Your task to perform on an android device: turn on improve location accuracy Image 0: 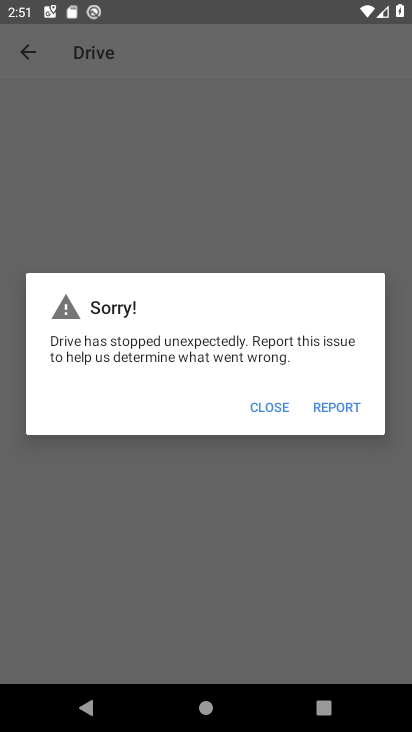
Step 0: press home button
Your task to perform on an android device: turn on improve location accuracy Image 1: 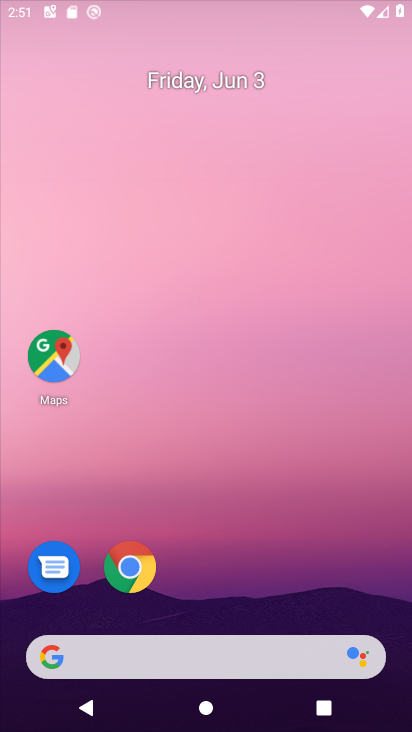
Step 1: drag from (271, 563) to (310, 140)
Your task to perform on an android device: turn on improve location accuracy Image 2: 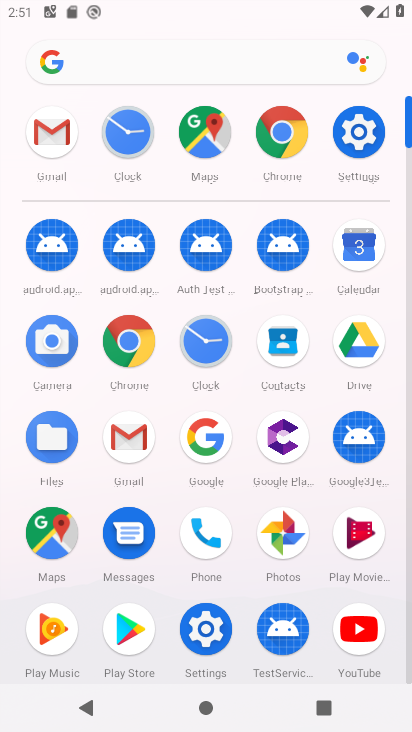
Step 2: click (371, 129)
Your task to perform on an android device: turn on improve location accuracy Image 3: 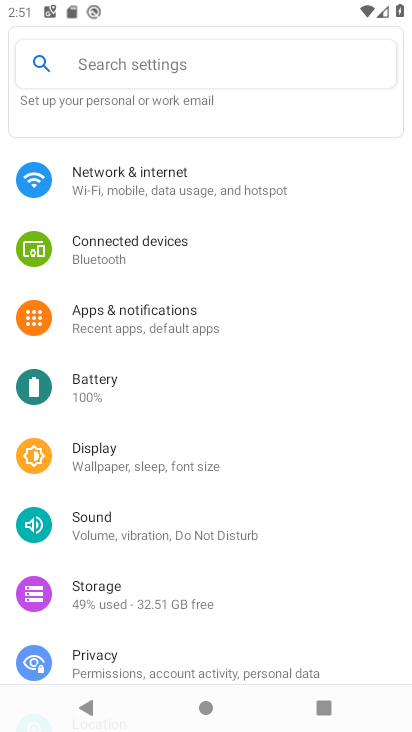
Step 3: drag from (159, 584) to (203, 276)
Your task to perform on an android device: turn on improve location accuracy Image 4: 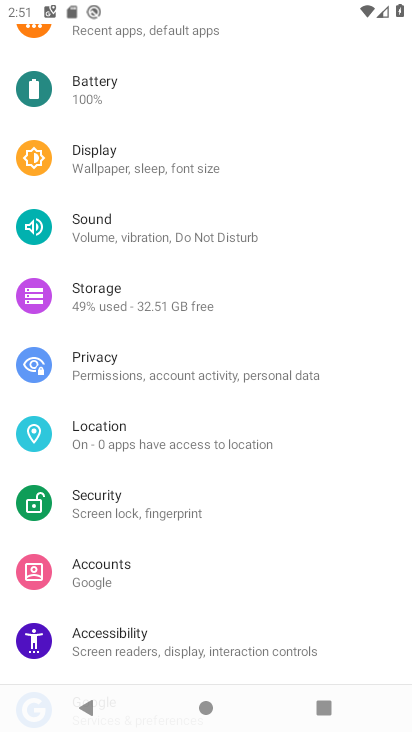
Step 4: click (133, 442)
Your task to perform on an android device: turn on improve location accuracy Image 5: 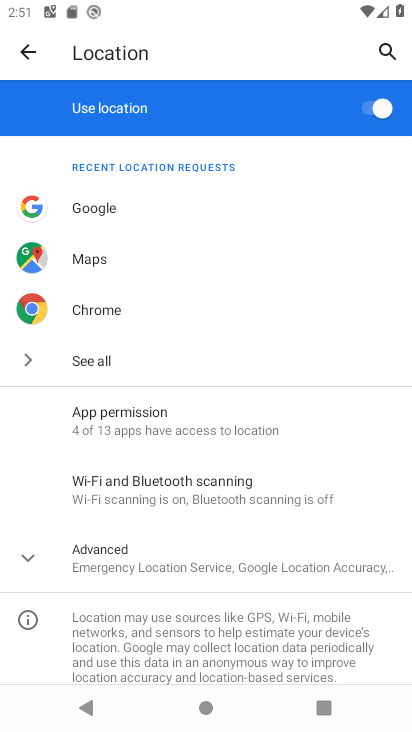
Step 5: click (247, 567)
Your task to perform on an android device: turn on improve location accuracy Image 6: 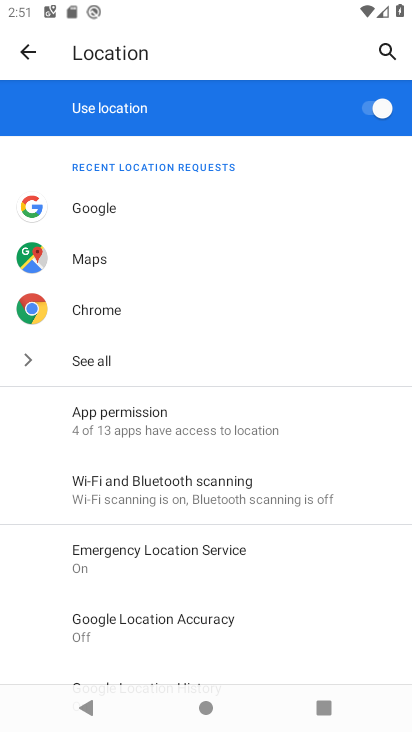
Step 6: drag from (258, 613) to (255, 381)
Your task to perform on an android device: turn on improve location accuracy Image 7: 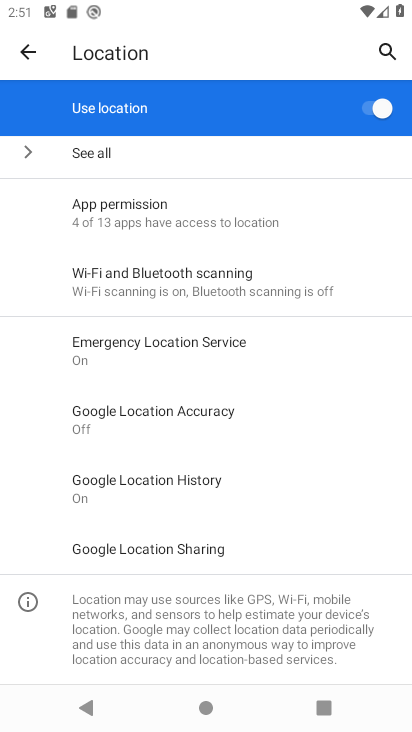
Step 7: click (206, 417)
Your task to perform on an android device: turn on improve location accuracy Image 8: 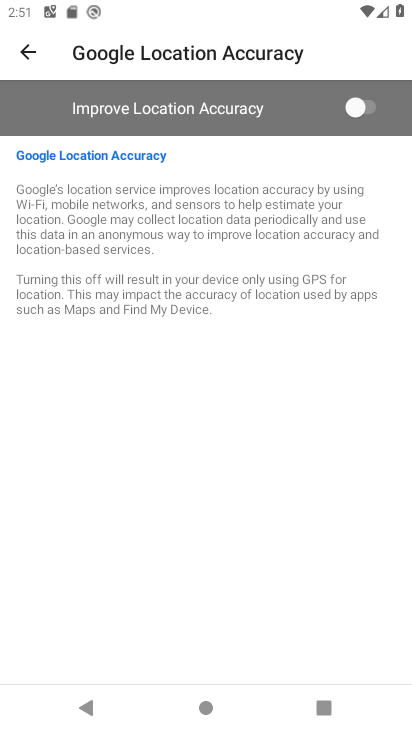
Step 8: click (380, 112)
Your task to perform on an android device: turn on improve location accuracy Image 9: 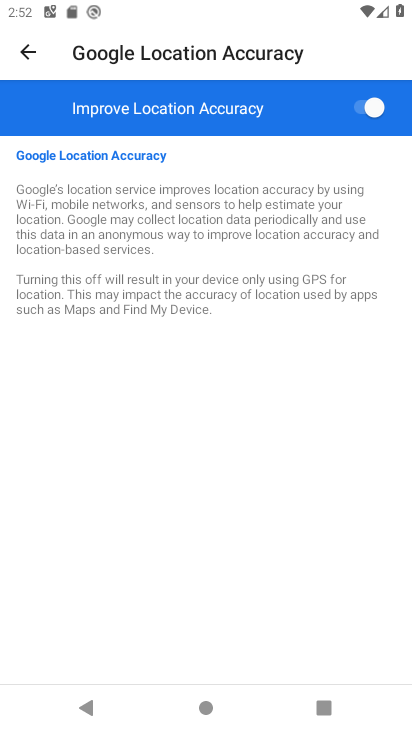
Step 9: task complete